Your task to perform on an android device: Go to Amazon Image 0: 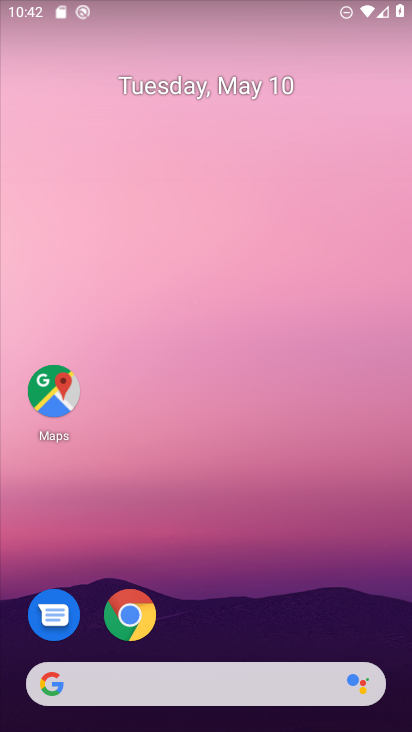
Step 0: drag from (262, 535) to (335, 218)
Your task to perform on an android device: Go to Amazon Image 1: 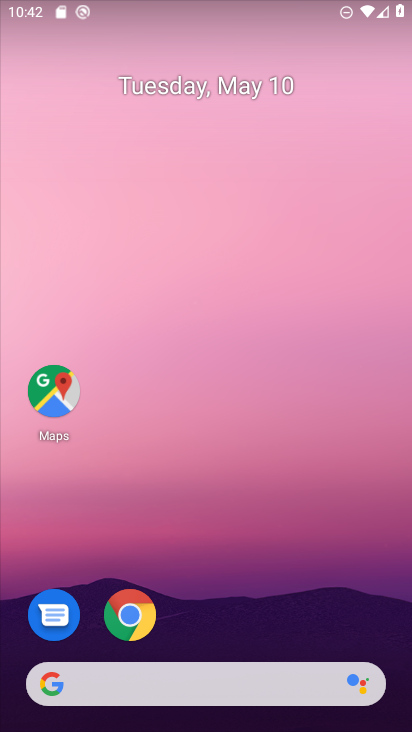
Step 1: click (130, 630)
Your task to perform on an android device: Go to Amazon Image 2: 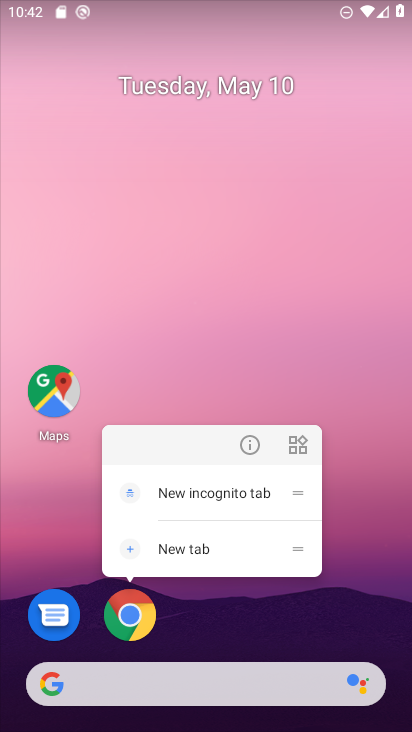
Step 2: click (147, 541)
Your task to perform on an android device: Go to Amazon Image 3: 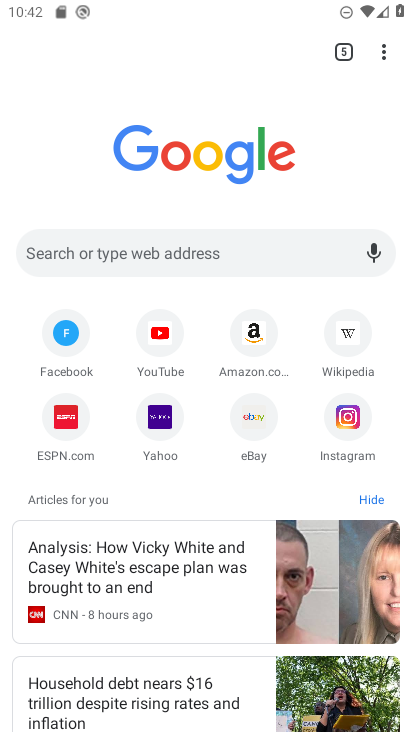
Step 3: click (254, 313)
Your task to perform on an android device: Go to Amazon Image 4: 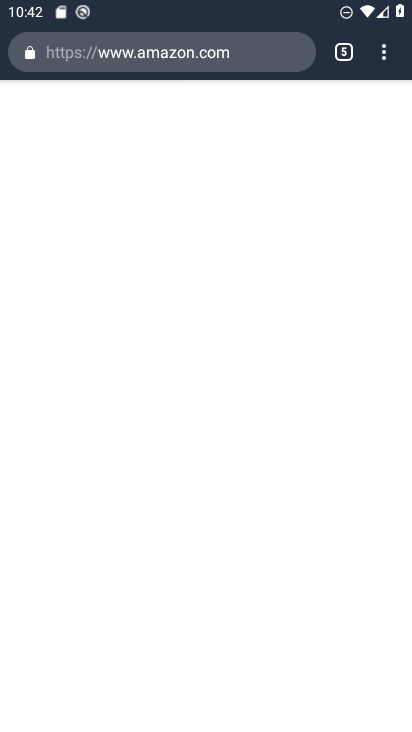
Step 4: task complete